Your task to perform on an android device: toggle notifications settings in the gmail app Image 0: 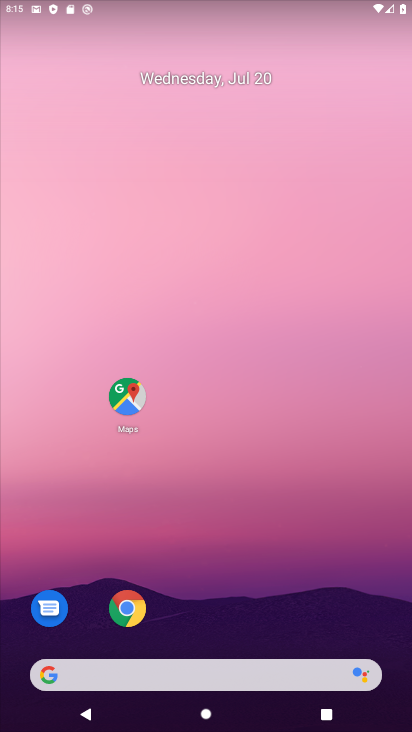
Step 0: task complete